Your task to perform on an android device: change the clock display to show seconds Image 0: 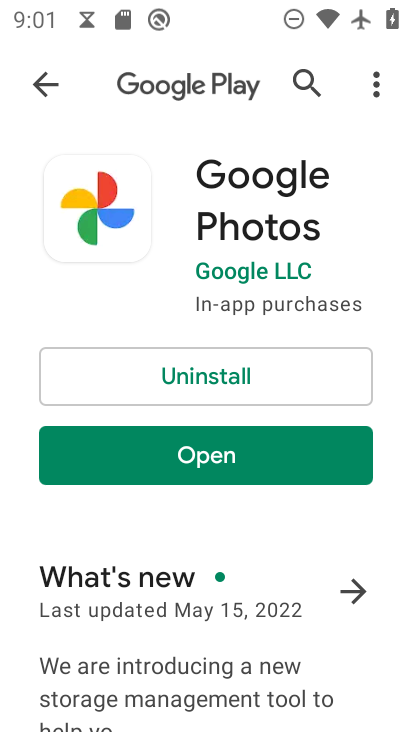
Step 0: press home button
Your task to perform on an android device: change the clock display to show seconds Image 1: 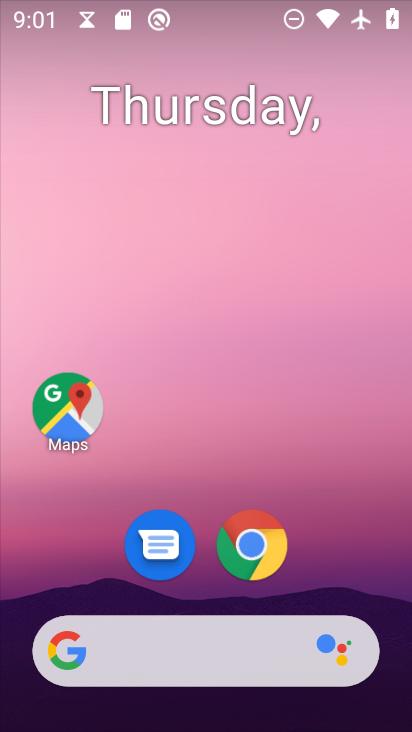
Step 1: drag from (346, 572) to (245, 227)
Your task to perform on an android device: change the clock display to show seconds Image 2: 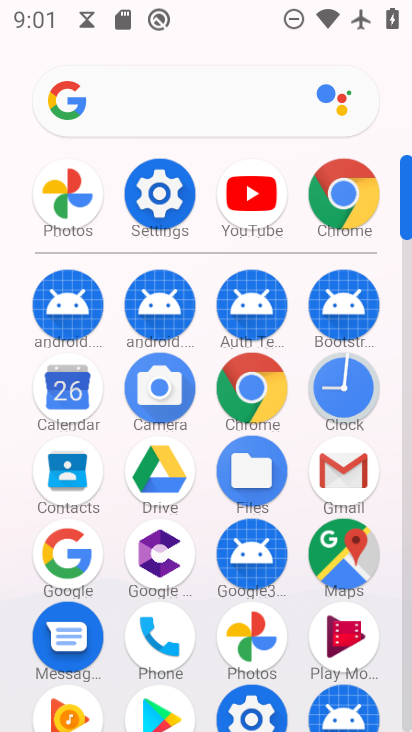
Step 2: click (344, 386)
Your task to perform on an android device: change the clock display to show seconds Image 3: 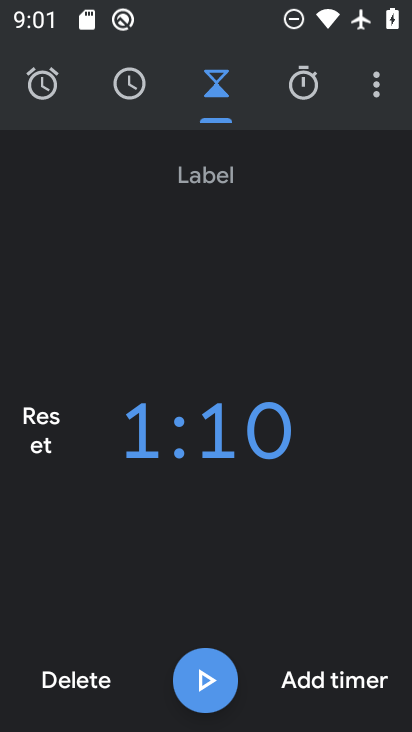
Step 3: click (378, 89)
Your task to perform on an android device: change the clock display to show seconds Image 4: 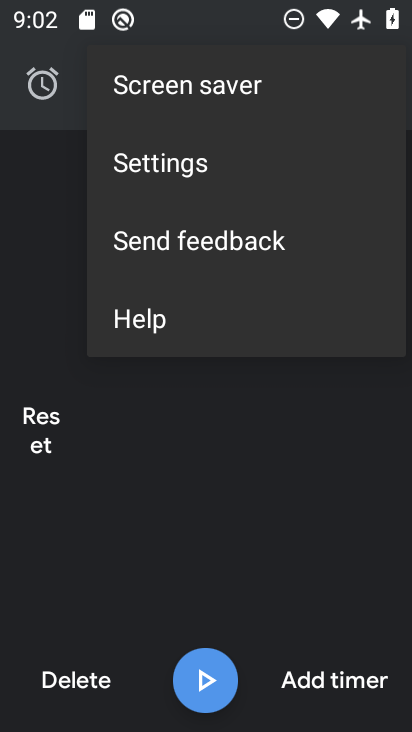
Step 4: click (175, 165)
Your task to perform on an android device: change the clock display to show seconds Image 5: 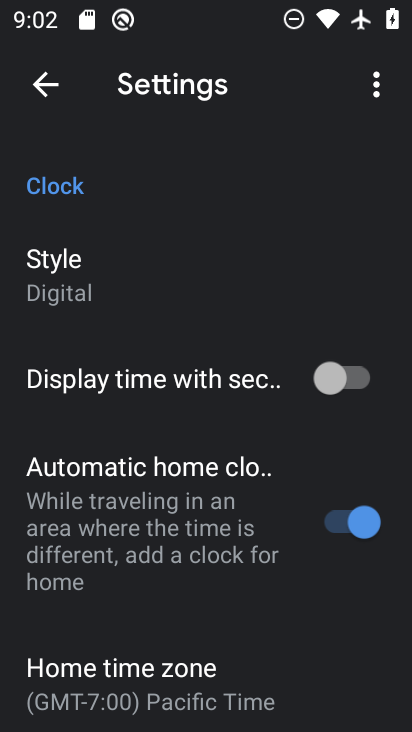
Step 5: click (336, 377)
Your task to perform on an android device: change the clock display to show seconds Image 6: 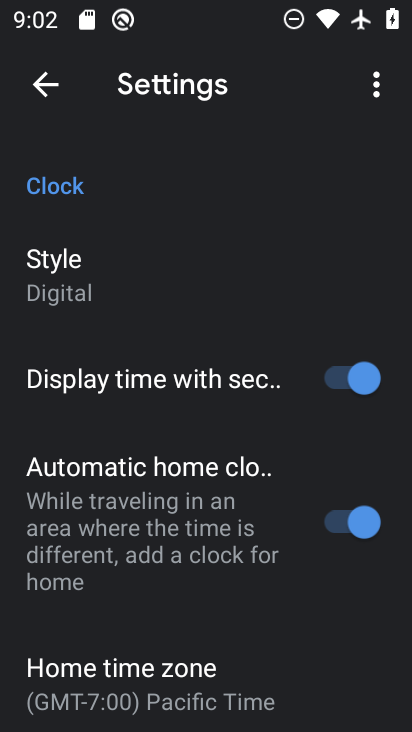
Step 6: task complete